Your task to perform on an android device: What's on Reddit this week Image 0: 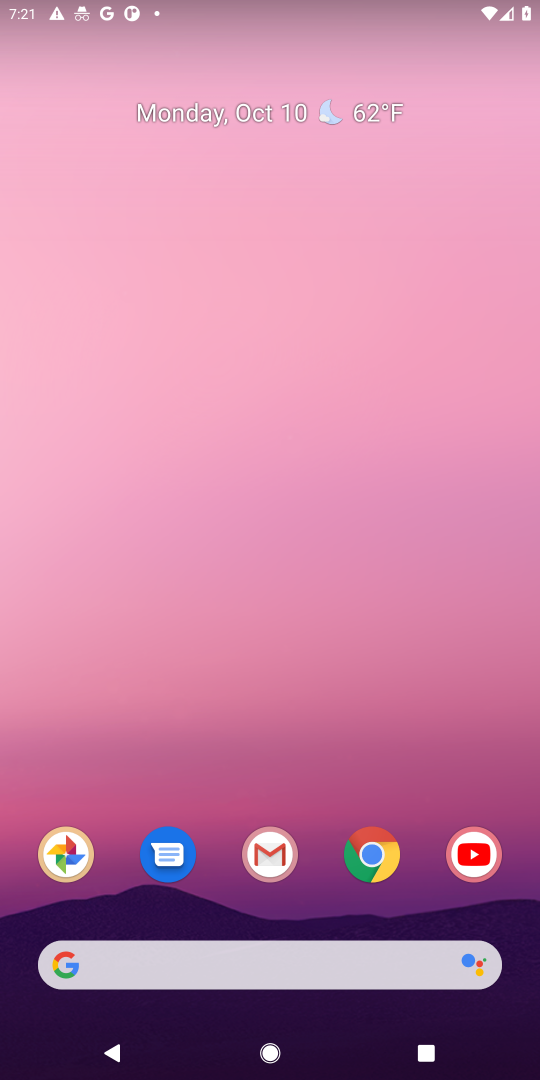
Step 0: click (371, 850)
Your task to perform on an android device: What's on Reddit this week Image 1: 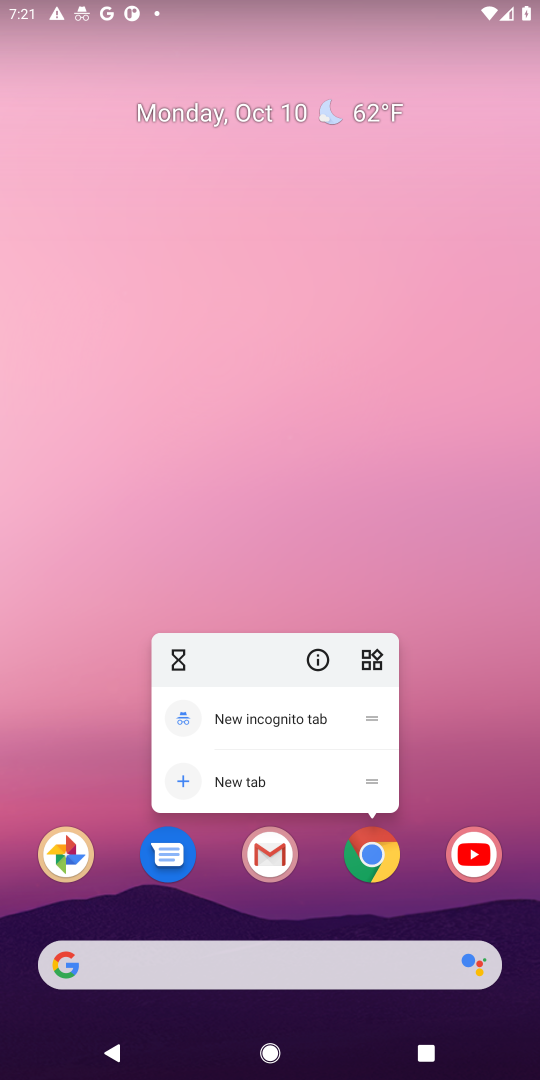
Step 1: click (385, 868)
Your task to perform on an android device: What's on Reddit this week Image 2: 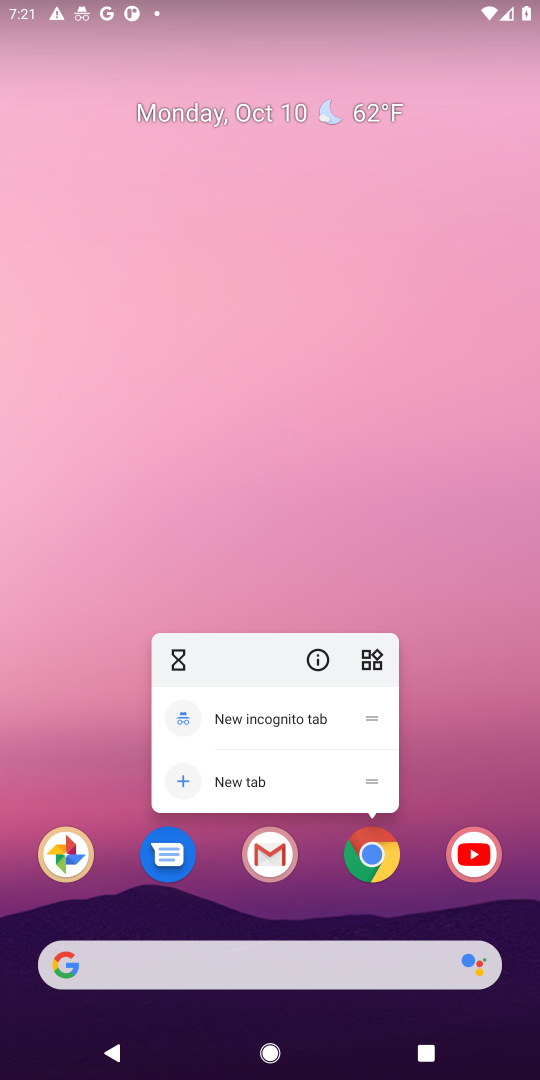
Step 2: click (381, 860)
Your task to perform on an android device: What's on Reddit this week Image 3: 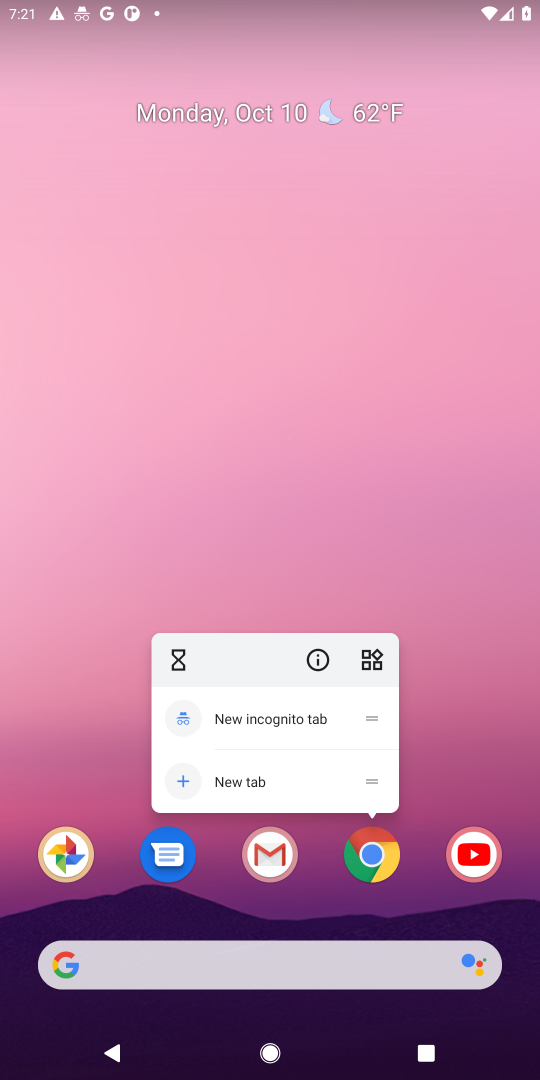
Step 3: click (380, 860)
Your task to perform on an android device: What's on Reddit this week Image 4: 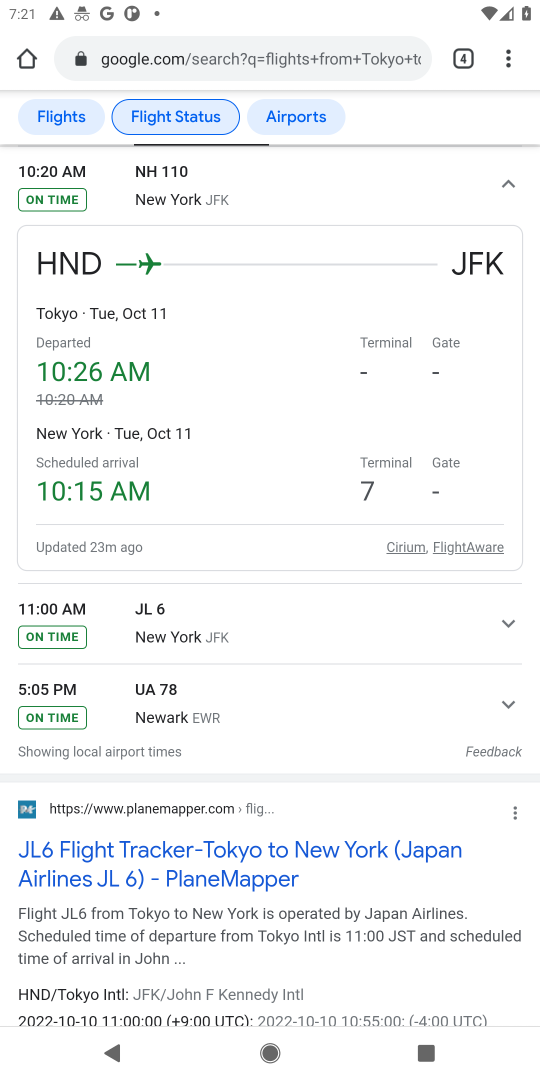
Step 4: click (211, 54)
Your task to perform on an android device: What's on Reddit this week Image 5: 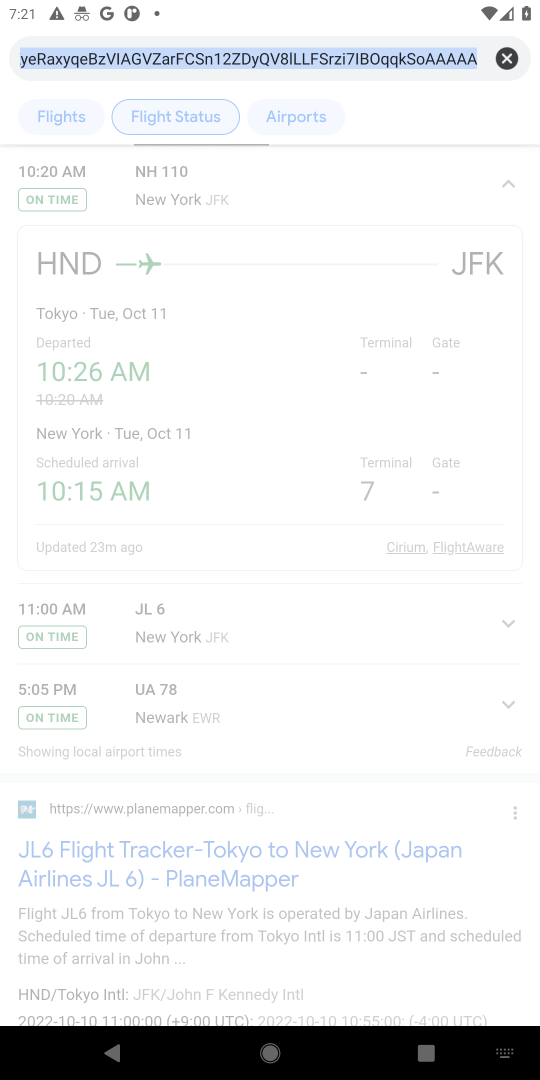
Step 5: click (507, 52)
Your task to perform on an android device: What's on Reddit this week Image 6: 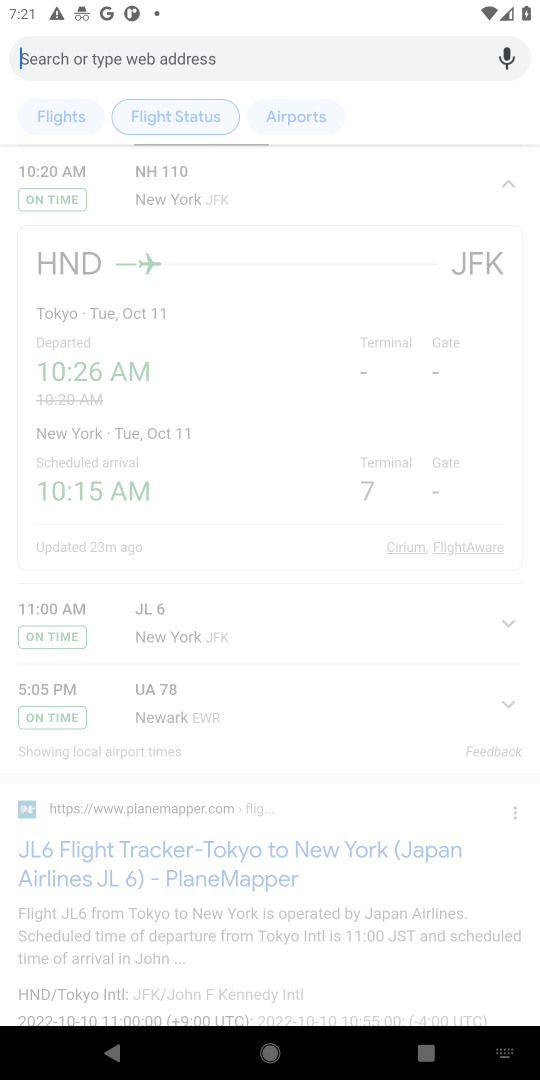
Step 6: type "What's on Reddit this week"
Your task to perform on an android device: What's on Reddit this week Image 7: 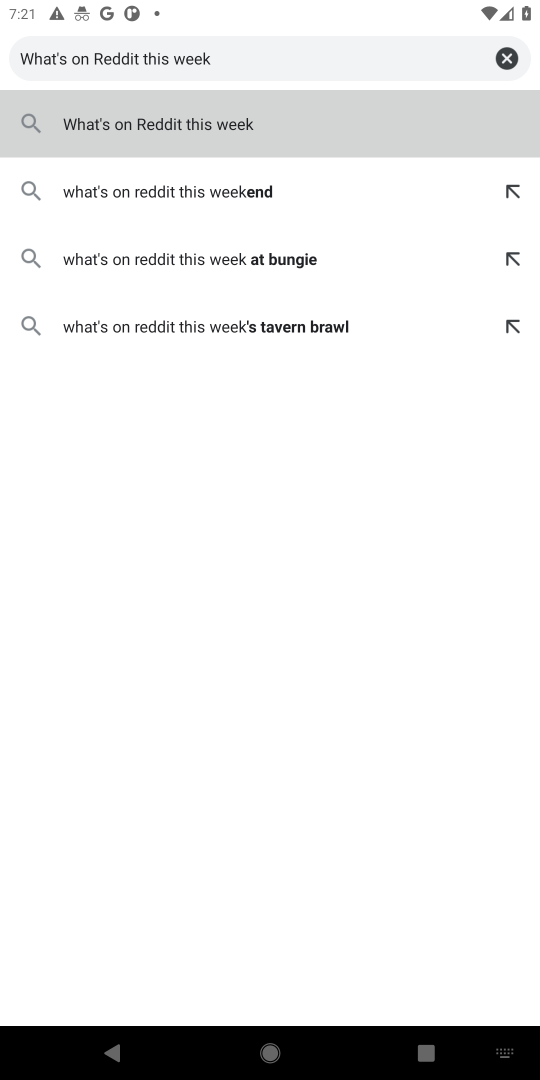
Step 7: click (160, 119)
Your task to perform on an android device: What's on Reddit this week Image 8: 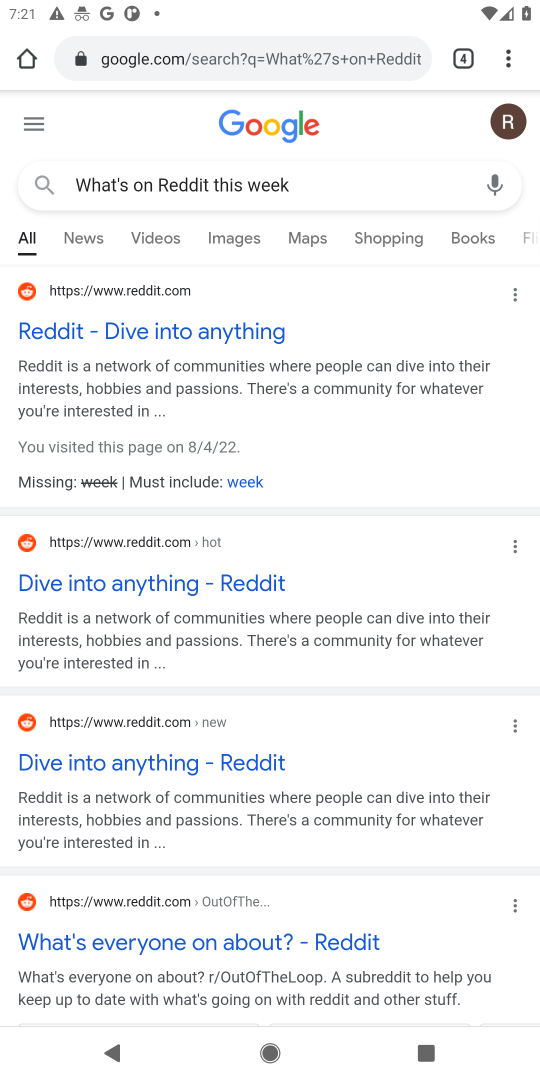
Step 8: click (181, 329)
Your task to perform on an android device: What's on Reddit this week Image 9: 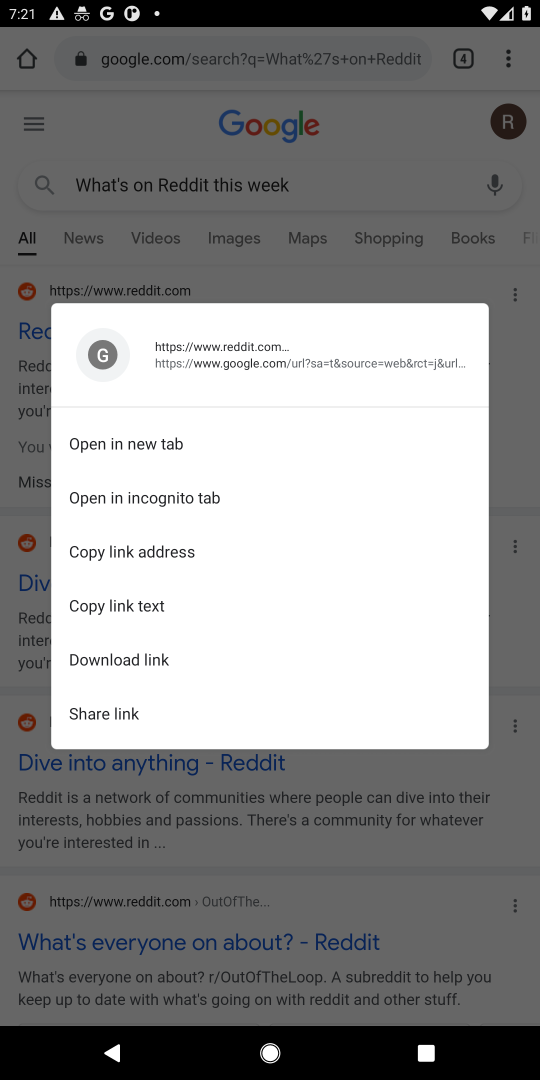
Step 9: click (466, 288)
Your task to perform on an android device: What's on Reddit this week Image 10: 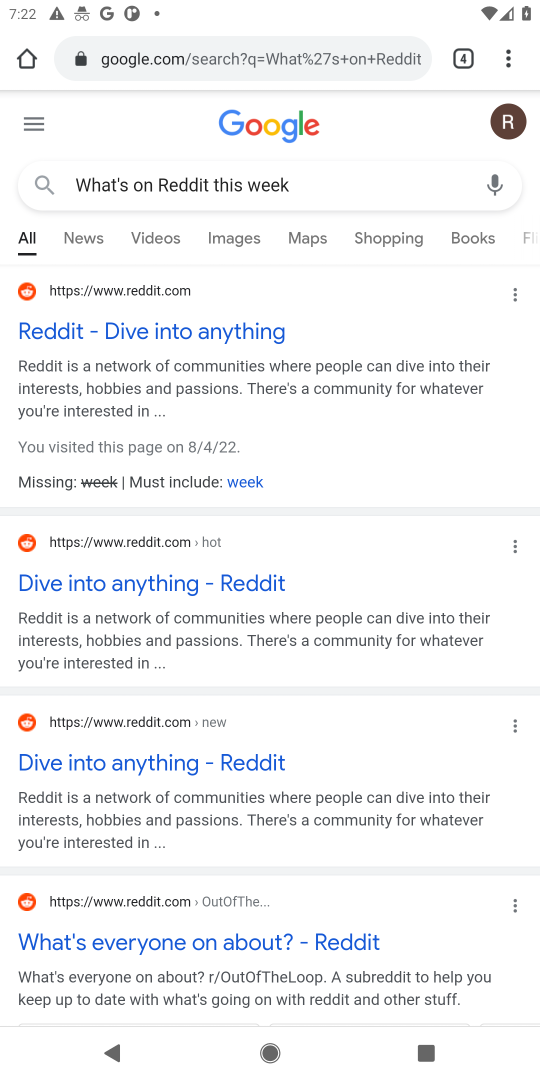
Step 10: click (26, 335)
Your task to perform on an android device: What's on Reddit this week Image 11: 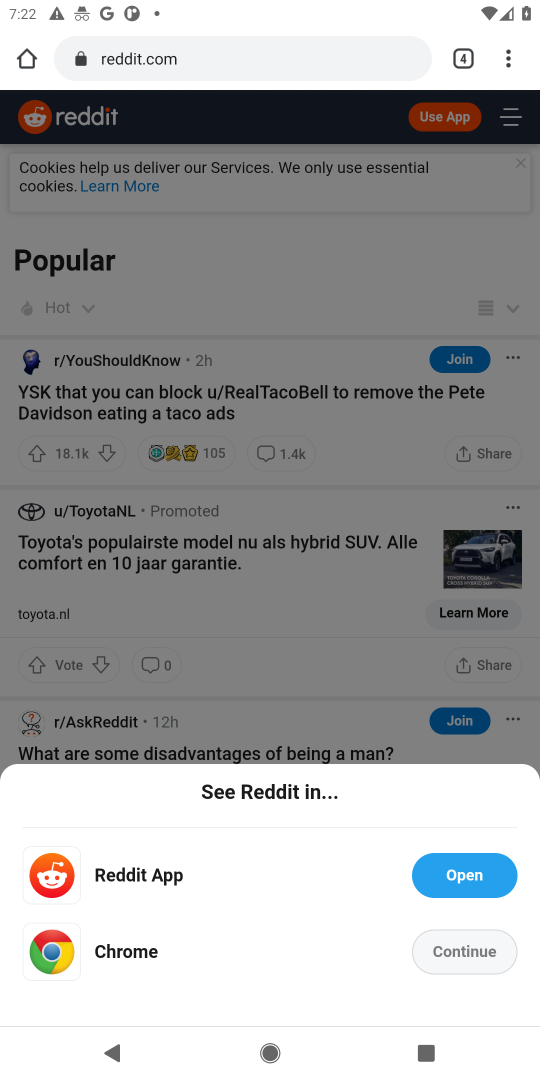
Step 11: drag from (284, 698) to (423, 369)
Your task to perform on an android device: What's on Reddit this week Image 12: 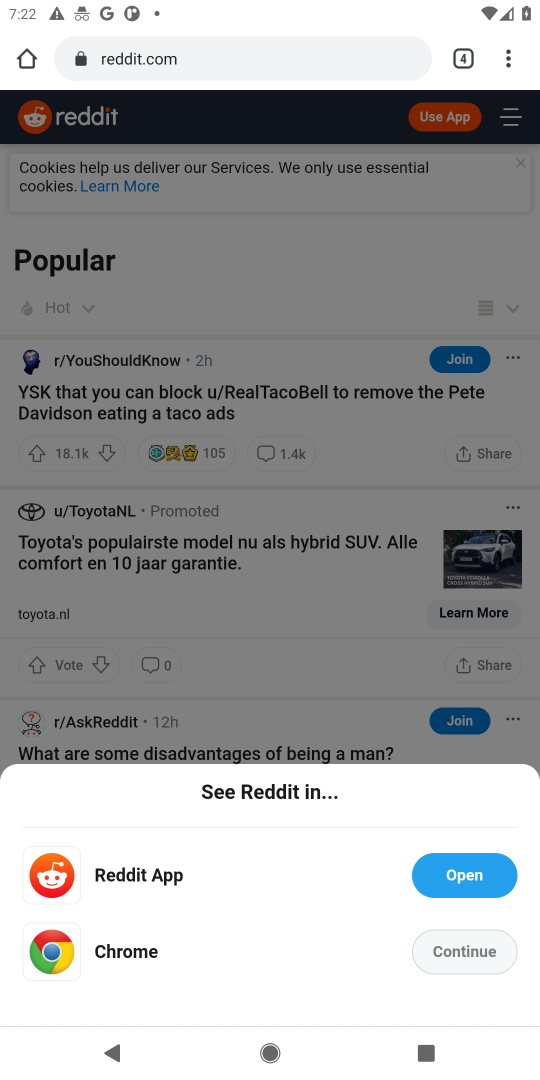
Step 12: click (458, 874)
Your task to perform on an android device: What's on Reddit this week Image 13: 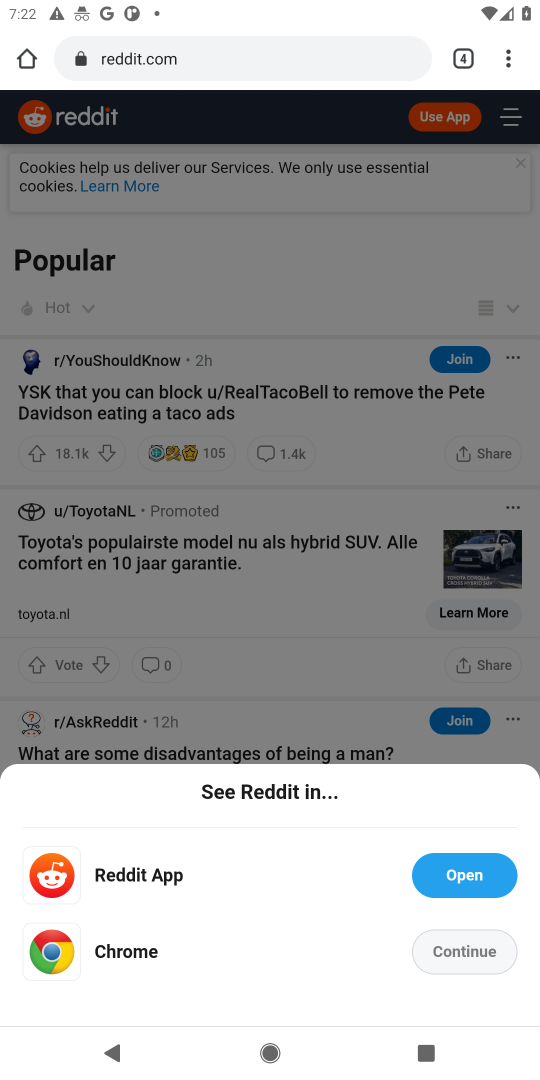
Step 13: click (464, 875)
Your task to perform on an android device: What's on Reddit this week Image 14: 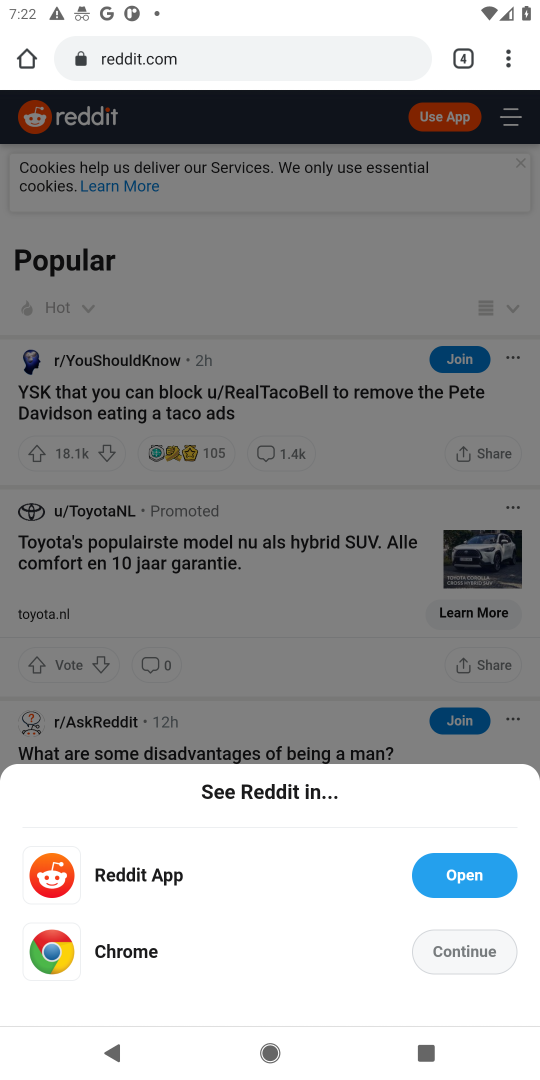
Step 14: task complete